Your task to perform on an android device: turn vacation reply on in the gmail app Image 0: 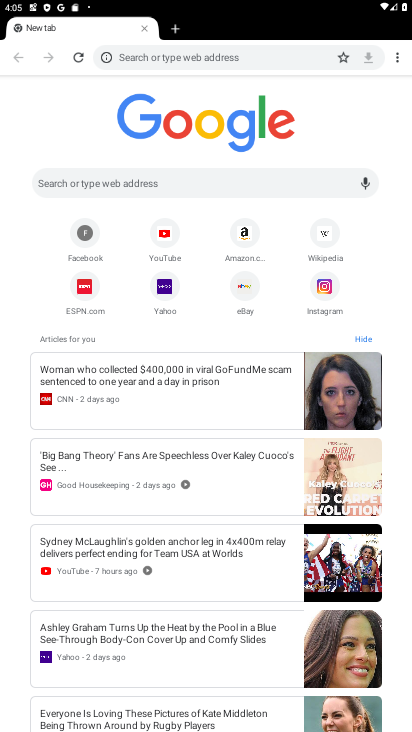
Step 0: press home button
Your task to perform on an android device: turn vacation reply on in the gmail app Image 1: 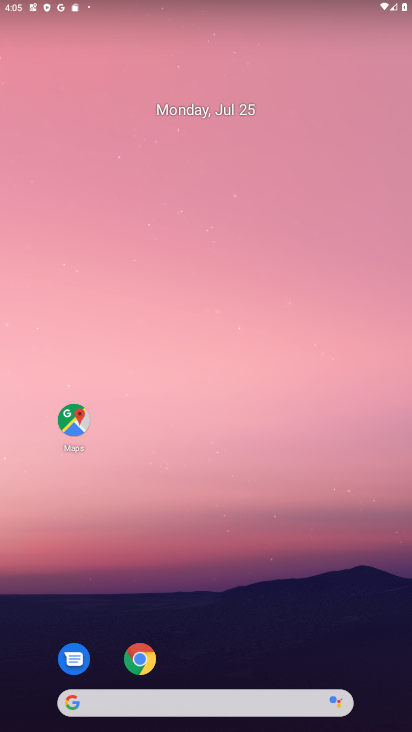
Step 1: drag from (388, 663) to (301, 96)
Your task to perform on an android device: turn vacation reply on in the gmail app Image 2: 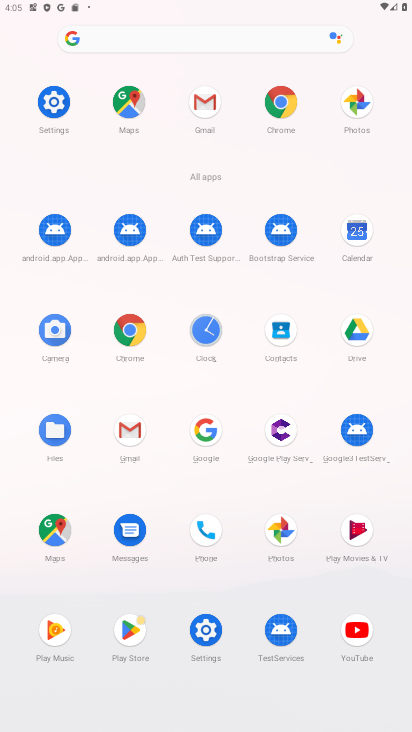
Step 2: click (129, 430)
Your task to perform on an android device: turn vacation reply on in the gmail app Image 3: 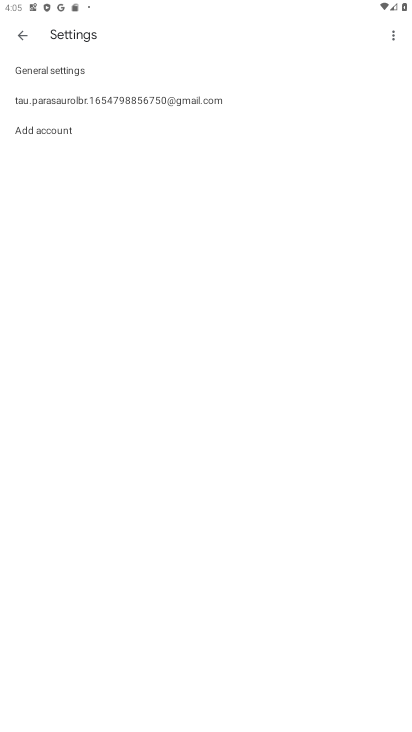
Step 3: click (93, 96)
Your task to perform on an android device: turn vacation reply on in the gmail app Image 4: 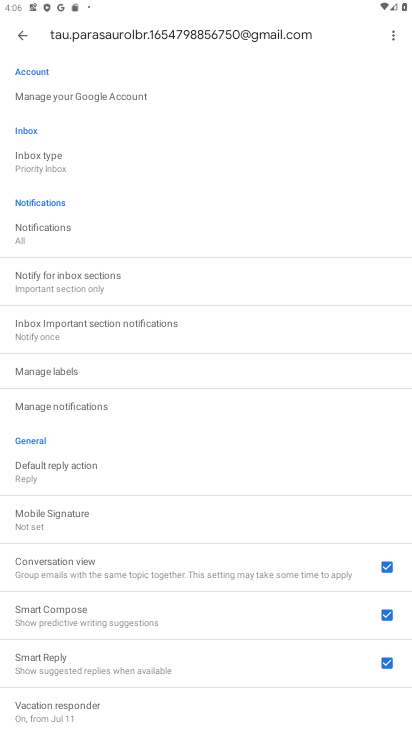
Step 4: drag from (193, 634) to (177, 313)
Your task to perform on an android device: turn vacation reply on in the gmail app Image 5: 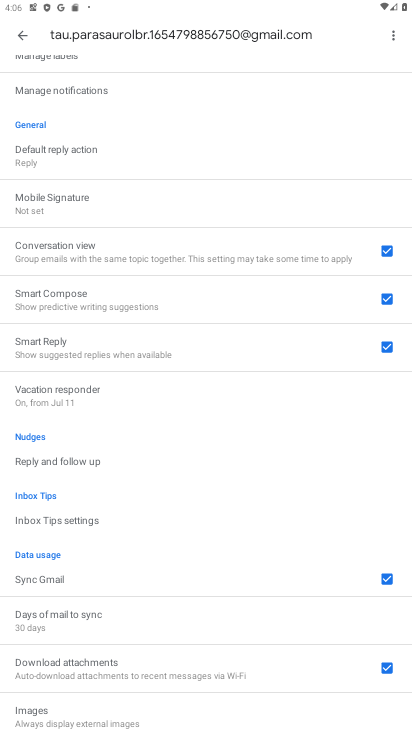
Step 5: click (87, 390)
Your task to perform on an android device: turn vacation reply on in the gmail app Image 6: 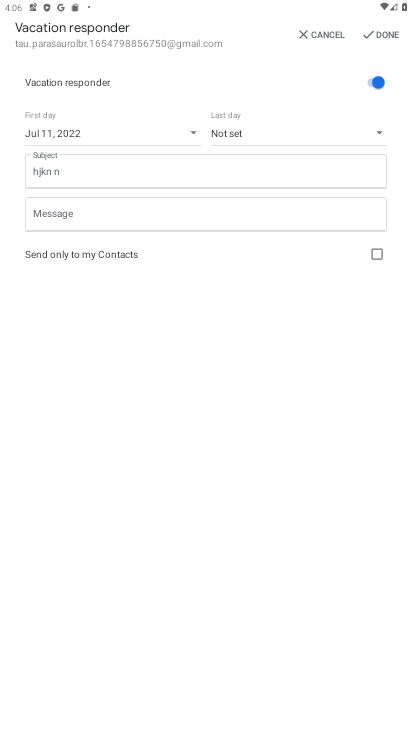
Step 6: click (381, 32)
Your task to perform on an android device: turn vacation reply on in the gmail app Image 7: 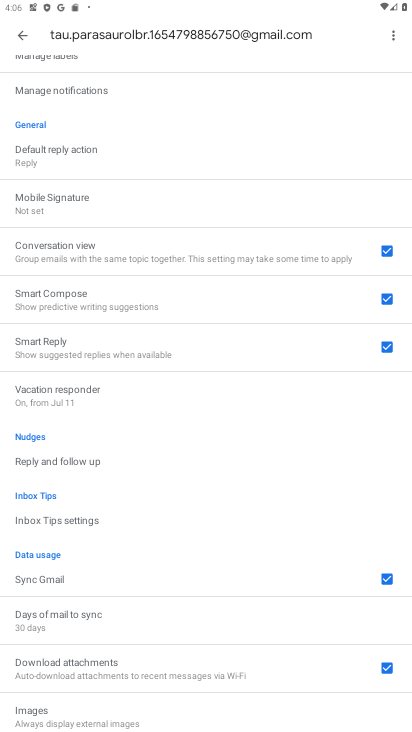
Step 7: task complete